Your task to perform on an android device: Open maps Image 0: 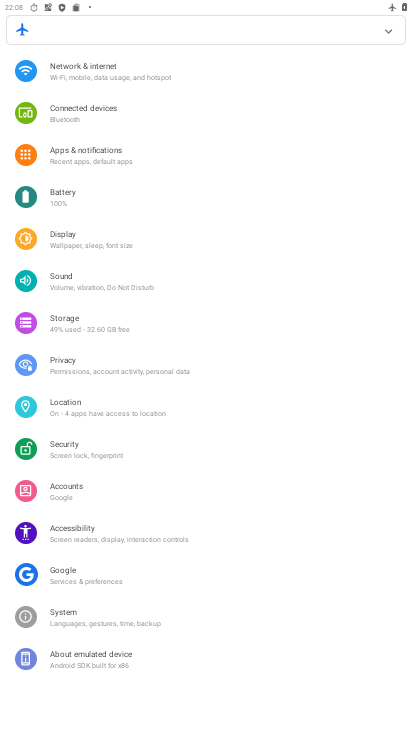
Step 0: press home button
Your task to perform on an android device: Open maps Image 1: 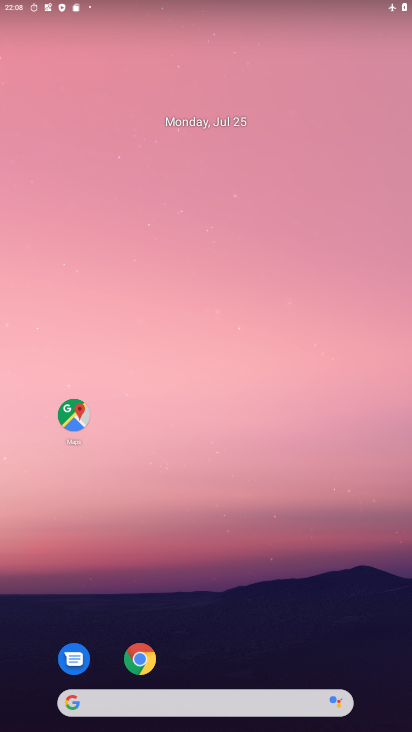
Step 1: click (67, 399)
Your task to perform on an android device: Open maps Image 2: 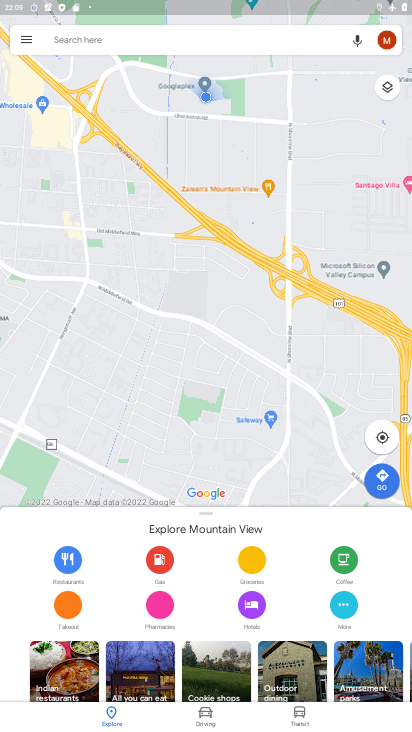
Step 2: task complete